Your task to perform on an android device: turn notification dots on Image 0: 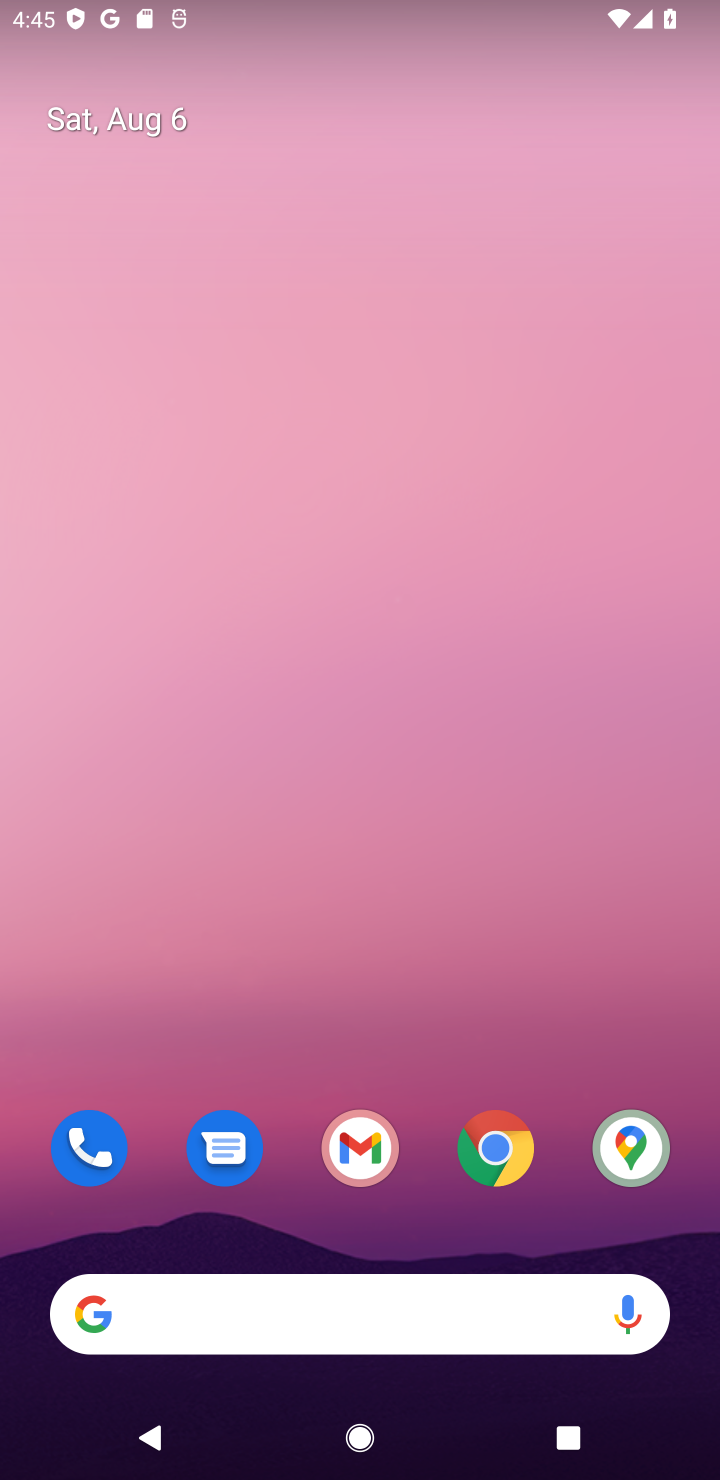
Step 0: press back button
Your task to perform on an android device: turn notification dots on Image 1: 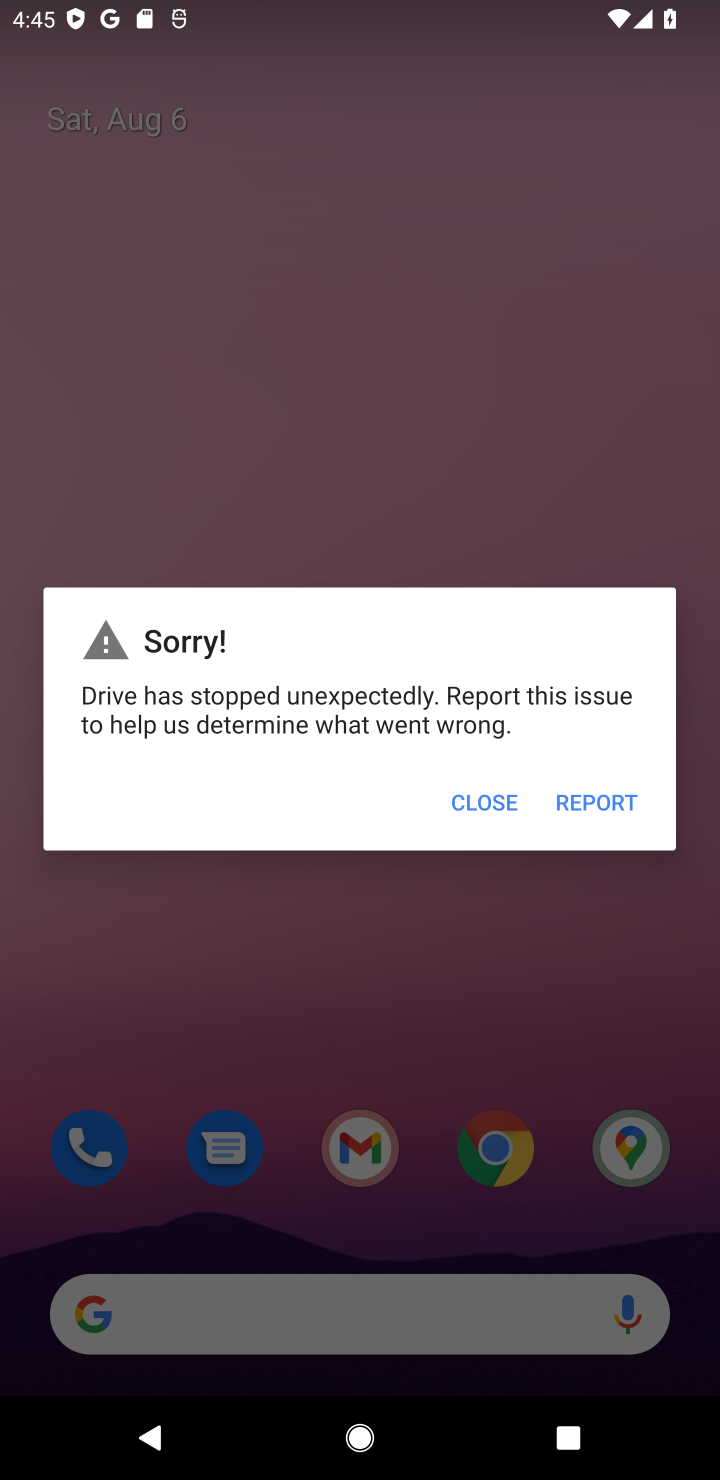
Step 1: press back button
Your task to perform on an android device: turn notification dots on Image 2: 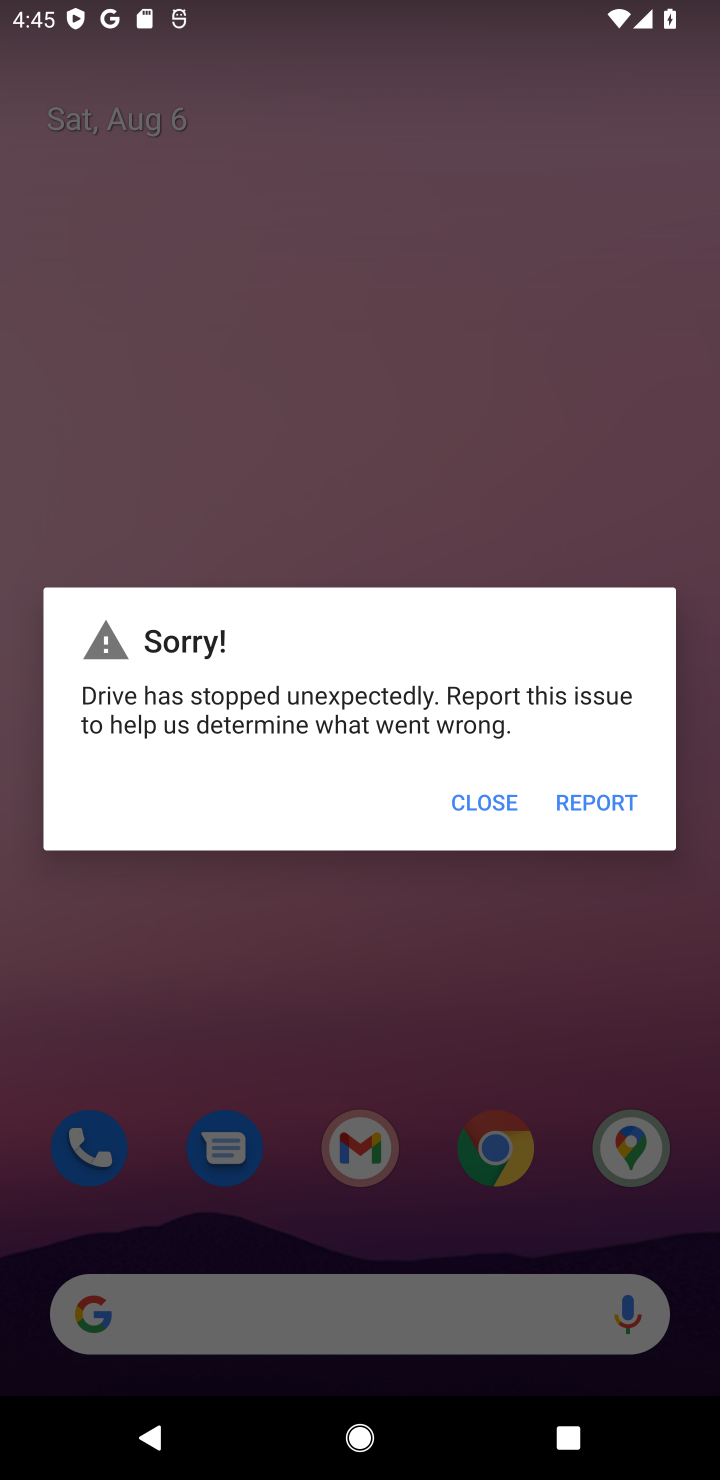
Step 2: press home button
Your task to perform on an android device: turn notification dots on Image 3: 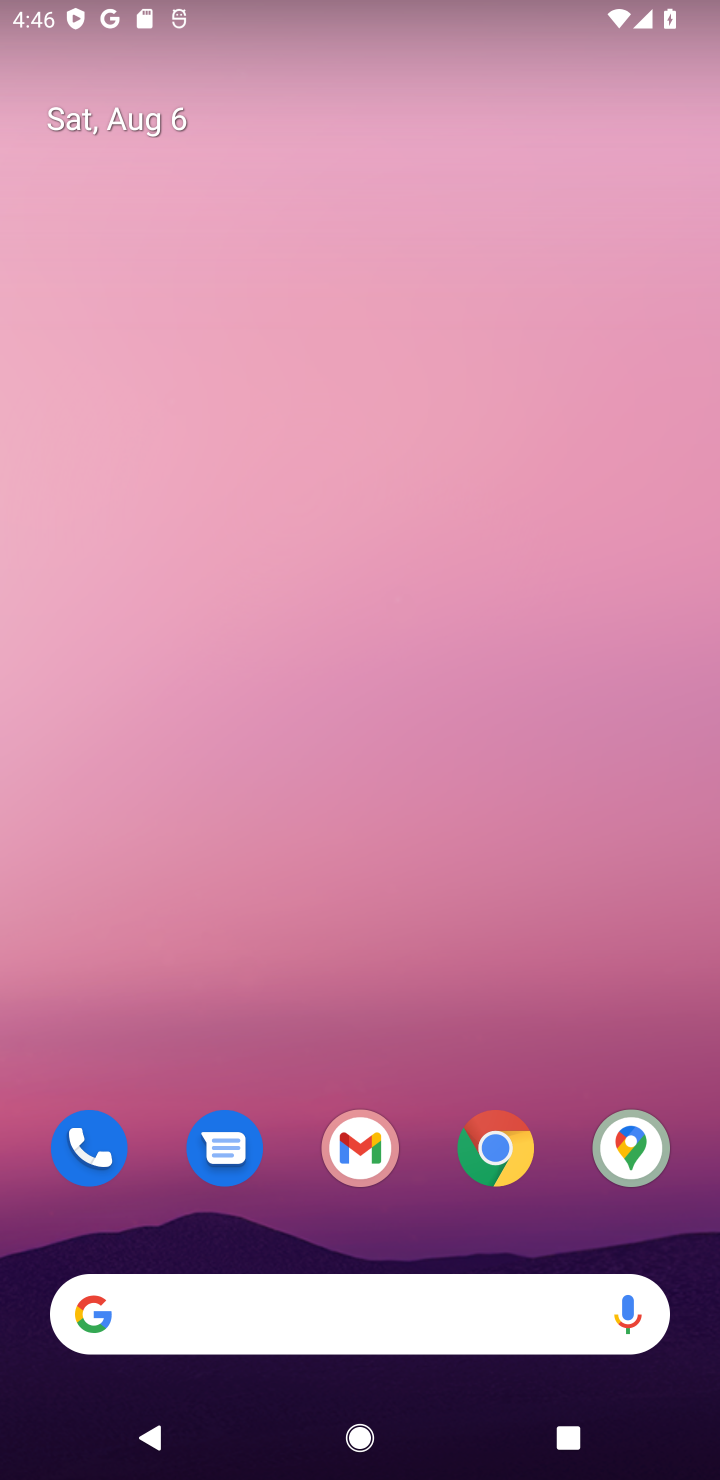
Step 3: drag from (426, 1233) to (291, 23)
Your task to perform on an android device: turn notification dots on Image 4: 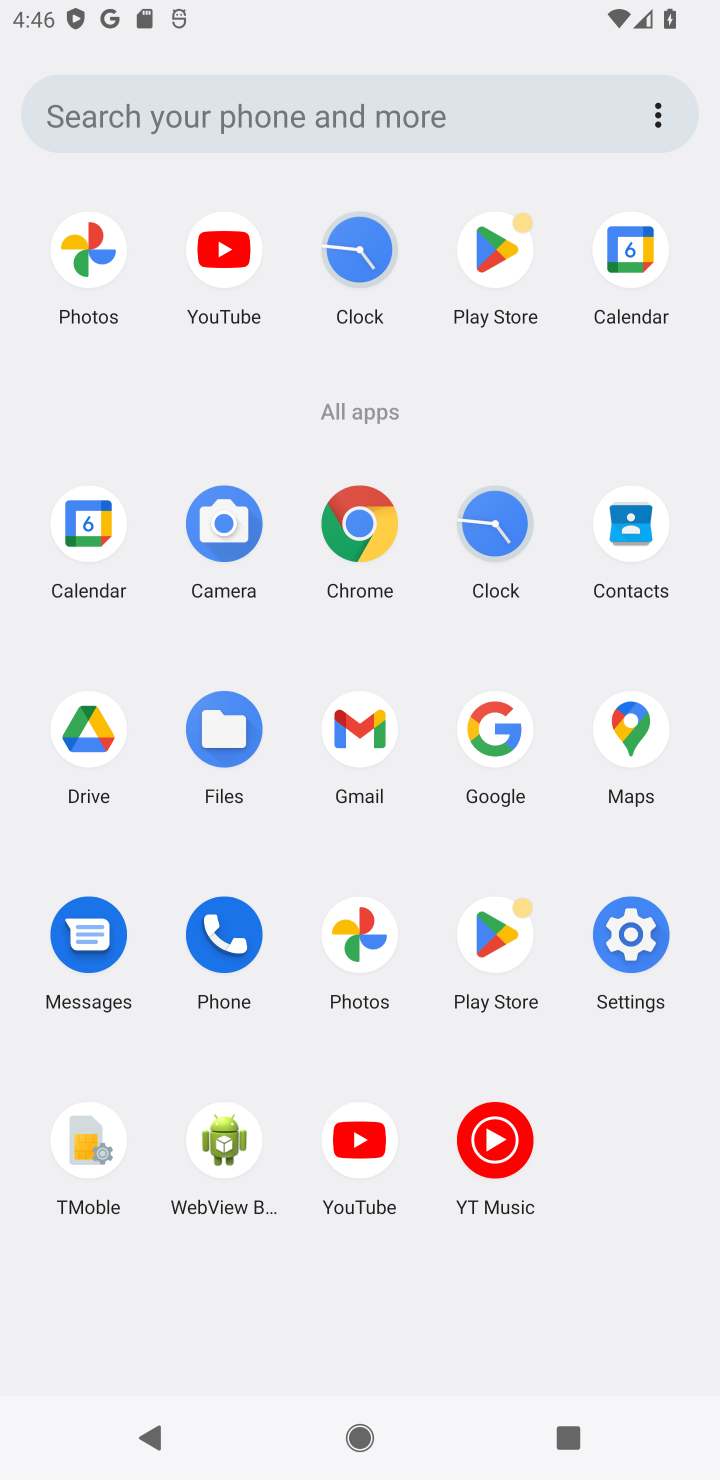
Step 4: click (642, 971)
Your task to perform on an android device: turn notification dots on Image 5: 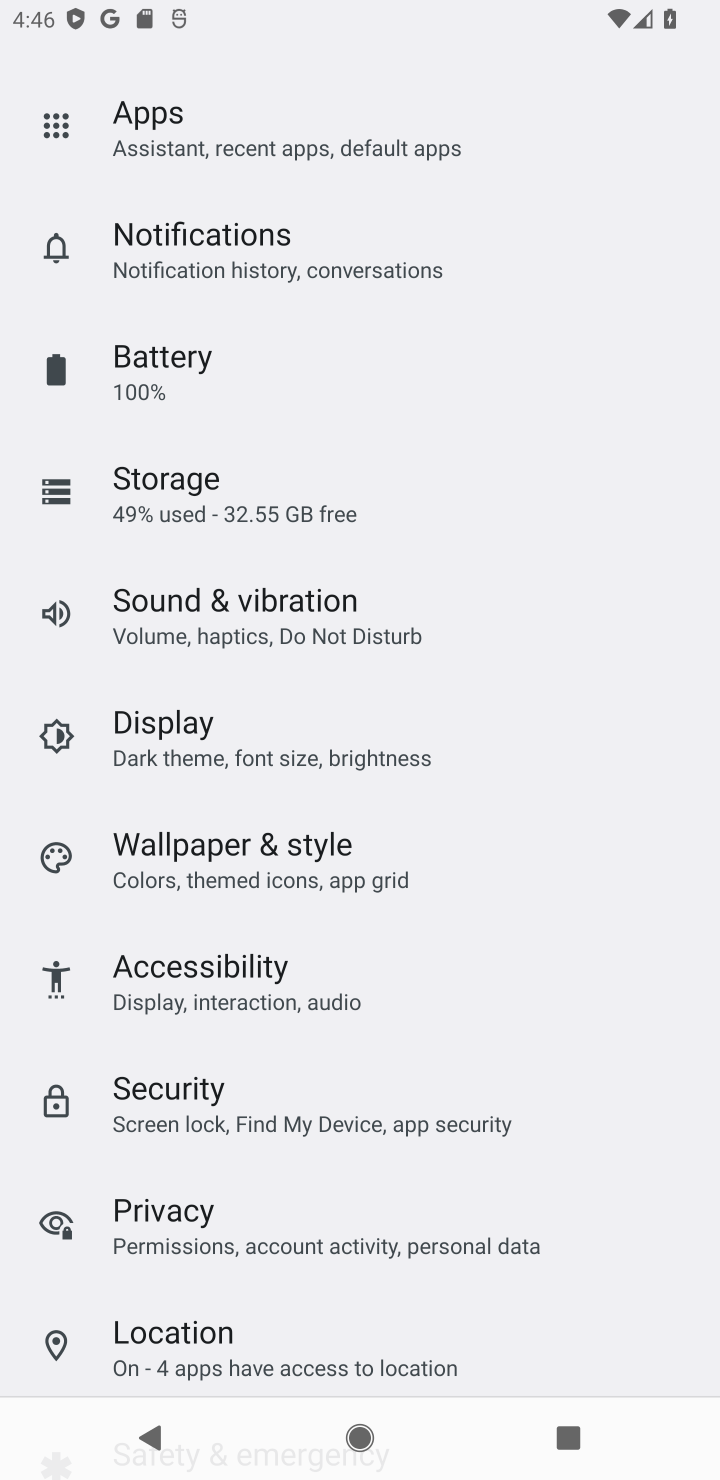
Step 5: click (331, 256)
Your task to perform on an android device: turn notification dots on Image 6: 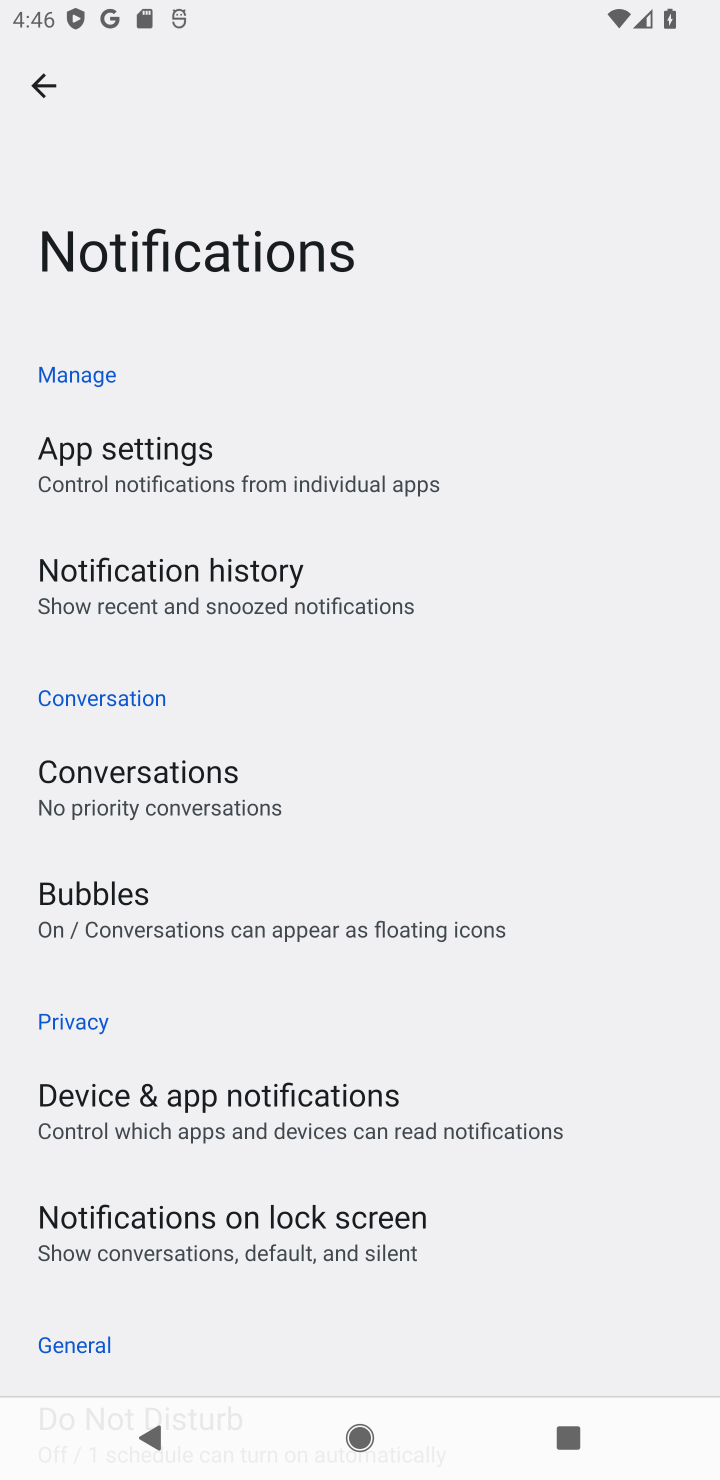
Step 6: task complete